Your task to perform on an android device: turn off airplane mode Image 0: 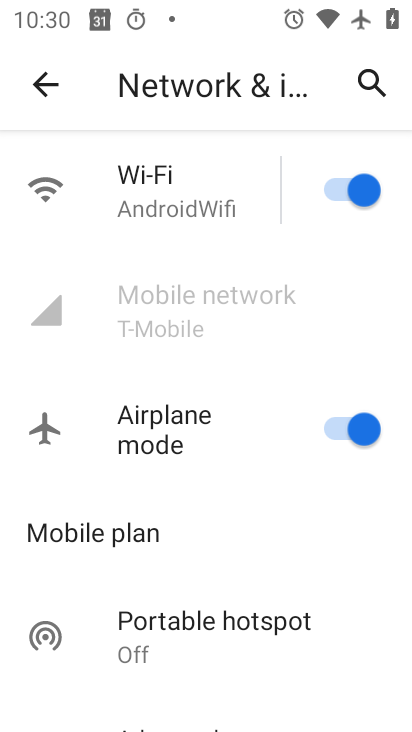
Step 0: press home button
Your task to perform on an android device: turn off airplane mode Image 1: 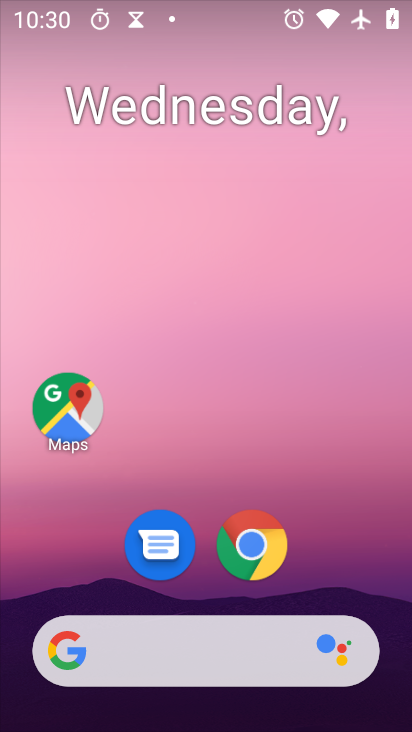
Step 1: drag from (150, 661) to (265, 145)
Your task to perform on an android device: turn off airplane mode Image 2: 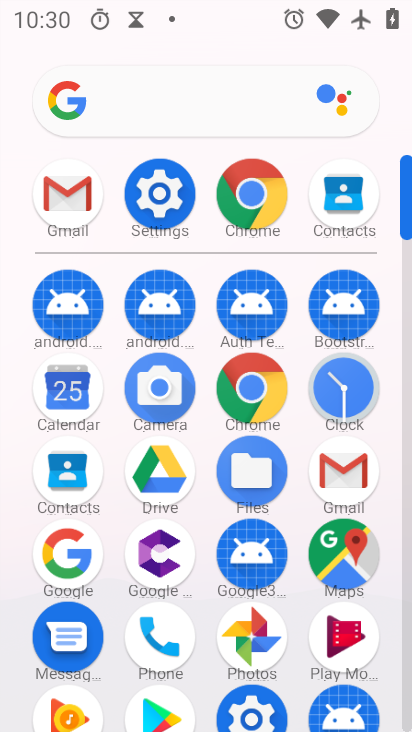
Step 2: click (154, 190)
Your task to perform on an android device: turn off airplane mode Image 3: 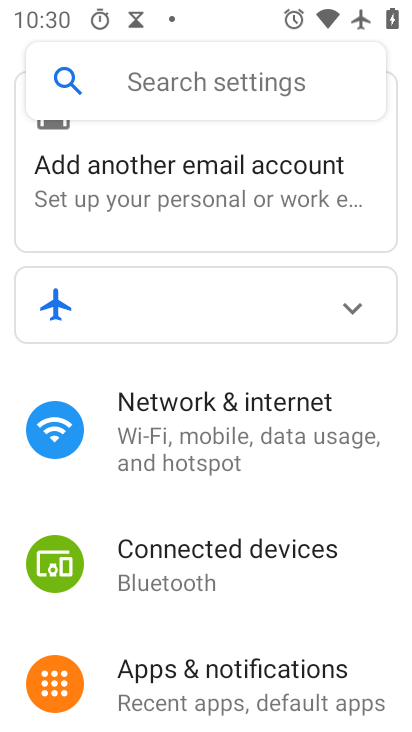
Step 3: click (199, 216)
Your task to perform on an android device: turn off airplane mode Image 4: 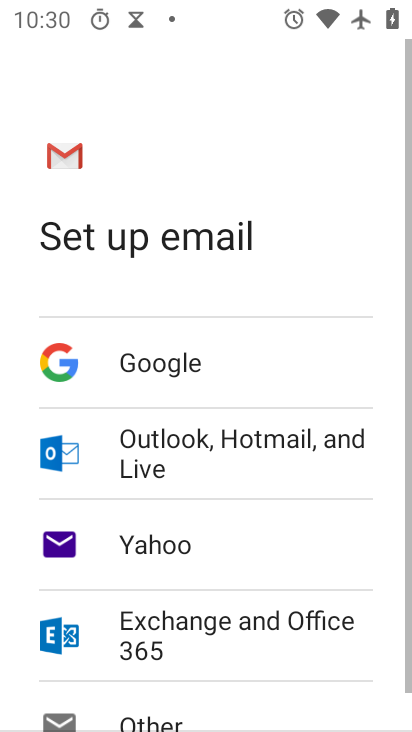
Step 4: press back button
Your task to perform on an android device: turn off airplane mode Image 5: 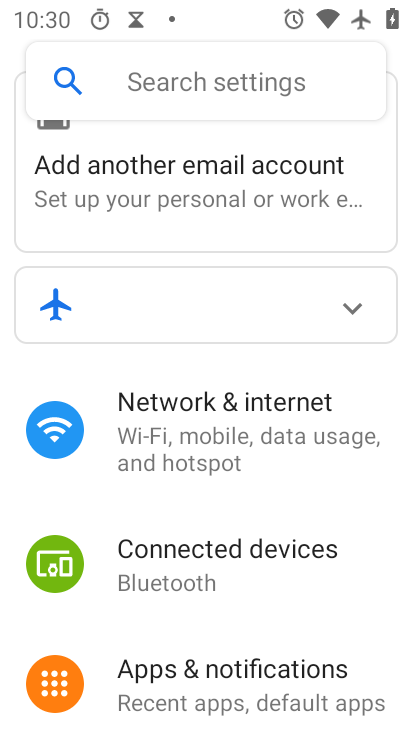
Step 5: click (209, 440)
Your task to perform on an android device: turn off airplane mode Image 6: 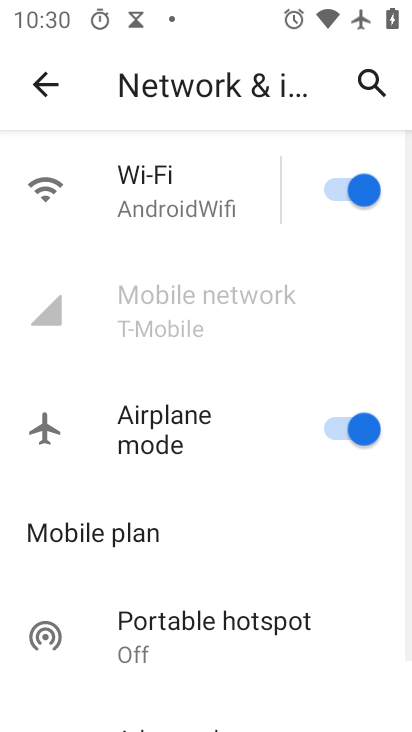
Step 6: click (338, 433)
Your task to perform on an android device: turn off airplane mode Image 7: 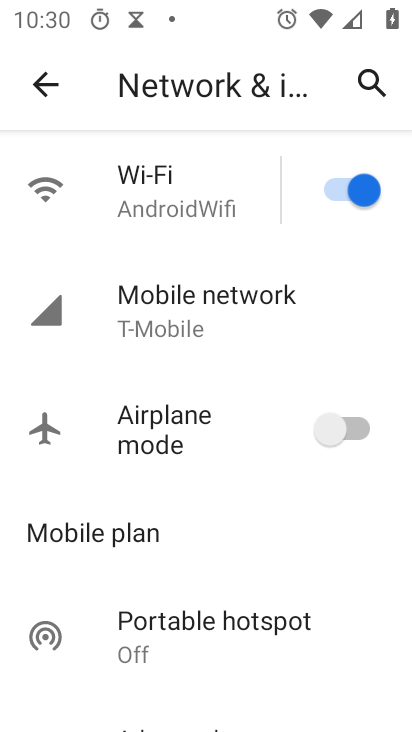
Step 7: task complete